Your task to perform on an android device: Open settings Image 0: 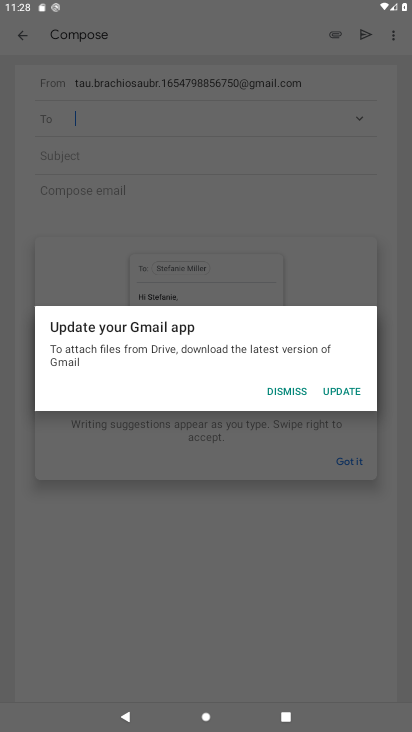
Step 0: press home button
Your task to perform on an android device: Open settings Image 1: 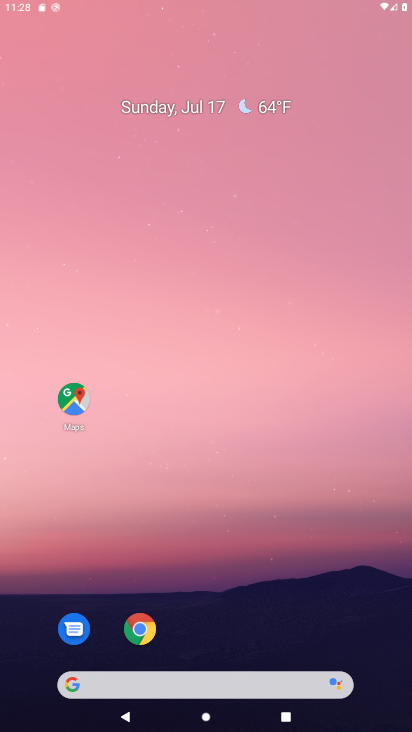
Step 1: drag from (253, 612) to (227, 283)
Your task to perform on an android device: Open settings Image 2: 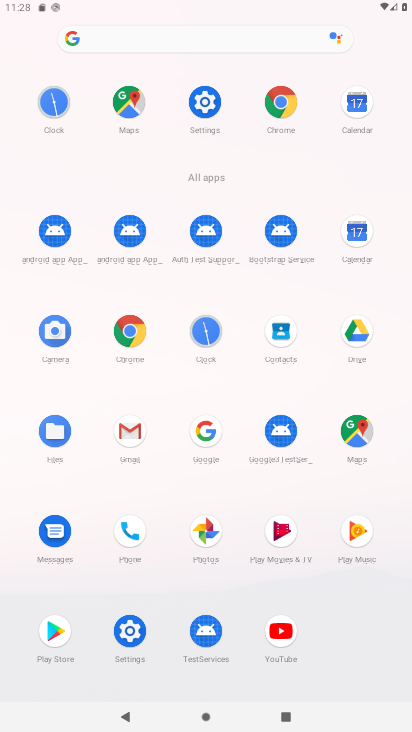
Step 2: click (215, 98)
Your task to perform on an android device: Open settings Image 3: 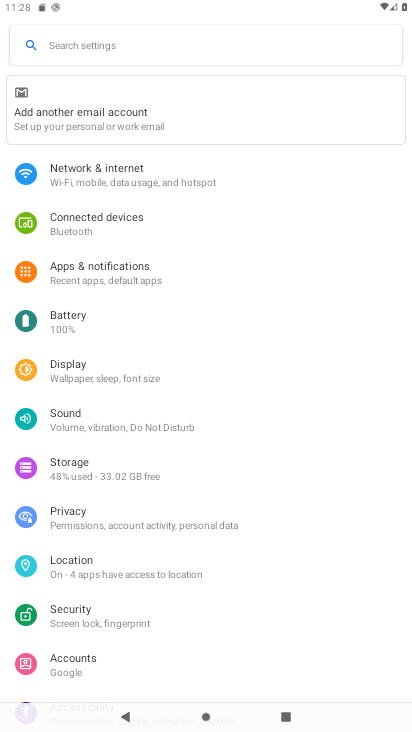
Step 3: task complete